Your task to perform on an android device: toggle notifications settings in the gmail app Image 0: 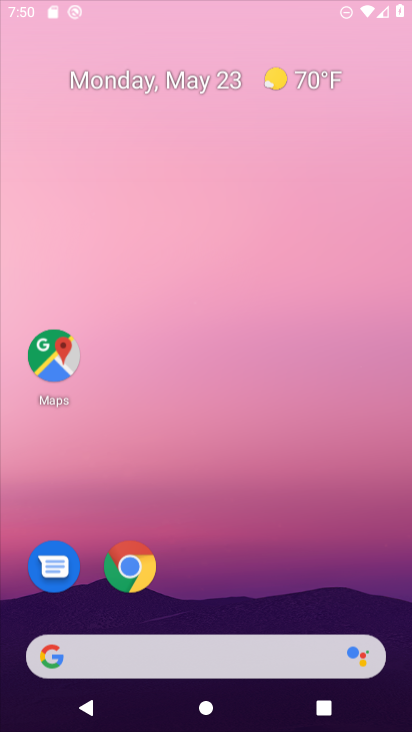
Step 0: drag from (10, 497) to (318, 22)
Your task to perform on an android device: toggle notifications settings in the gmail app Image 1: 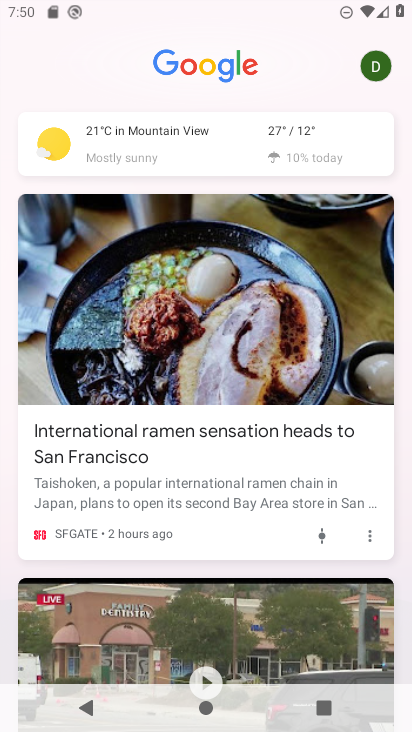
Step 1: press home button
Your task to perform on an android device: toggle notifications settings in the gmail app Image 2: 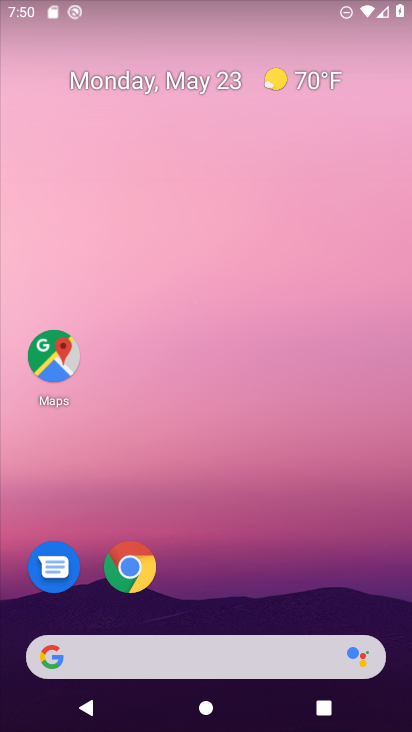
Step 2: drag from (203, 610) to (265, 28)
Your task to perform on an android device: toggle notifications settings in the gmail app Image 3: 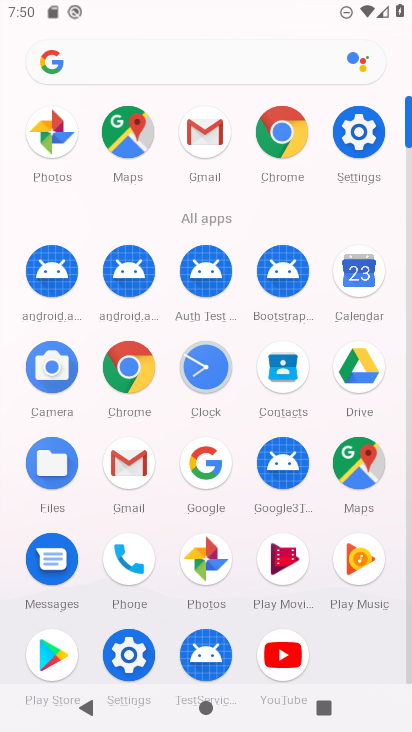
Step 3: click (205, 123)
Your task to perform on an android device: toggle notifications settings in the gmail app Image 4: 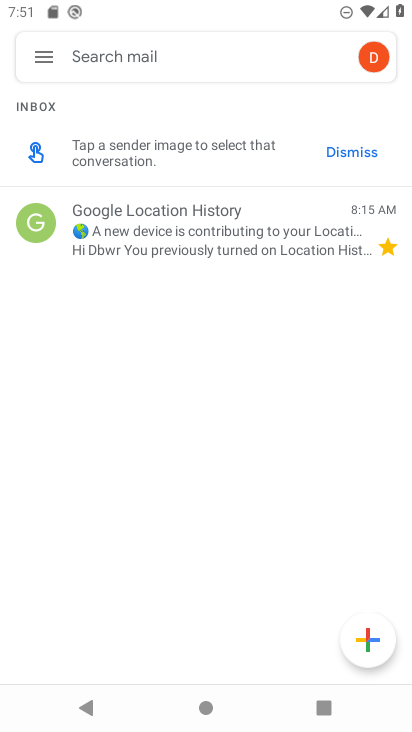
Step 4: click (29, 57)
Your task to perform on an android device: toggle notifications settings in the gmail app Image 5: 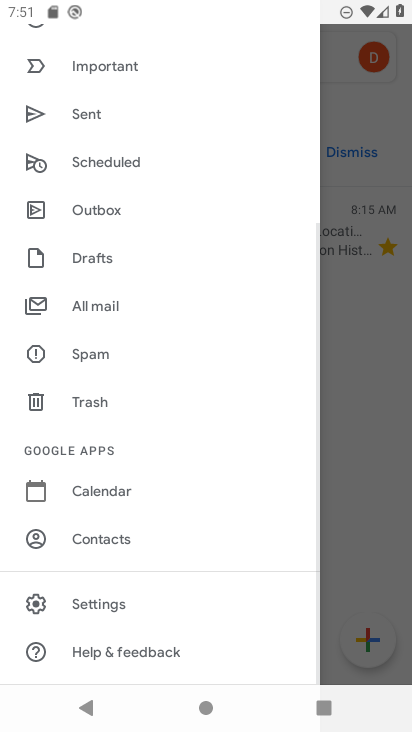
Step 5: click (84, 607)
Your task to perform on an android device: toggle notifications settings in the gmail app Image 6: 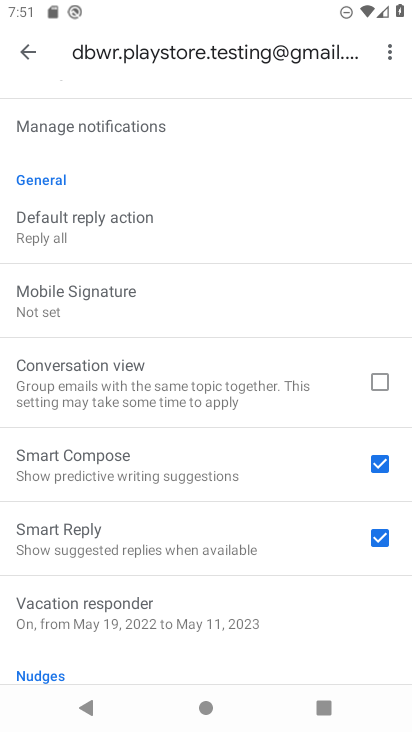
Step 6: drag from (236, 216) to (253, 514)
Your task to perform on an android device: toggle notifications settings in the gmail app Image 7: 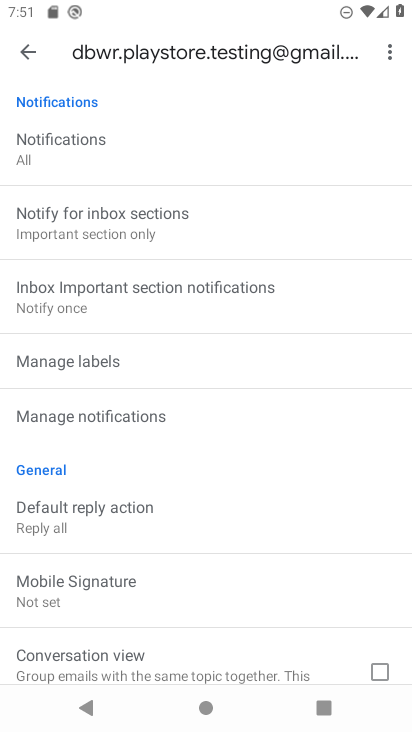
Step 7: click (81, 412)
Your task to perform on an android device: toggle notifications settings in the gmail app Image 8: 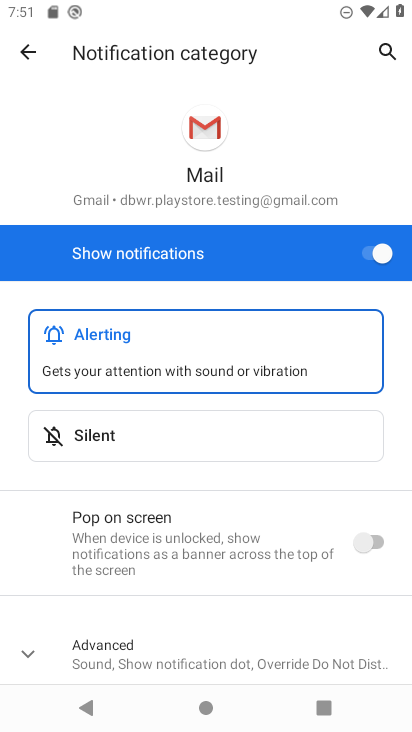
Step 8: click (369, 261)
Your task to perform on an android device: toggle notifications settings in the gmail app Image 9: 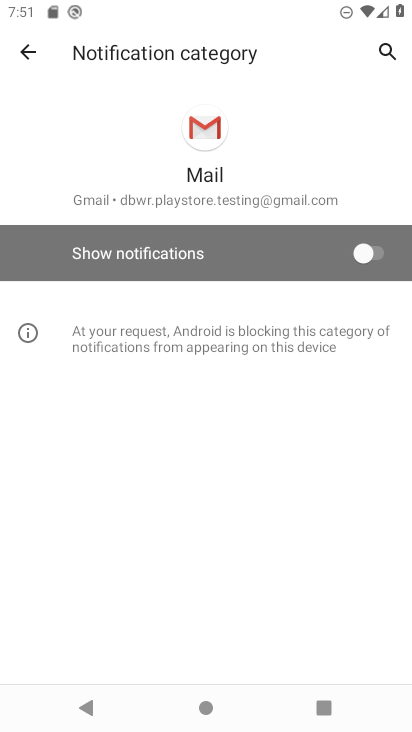
Step 9: task complete